Your task to perform on an android device: Open CNN.com Image 0: 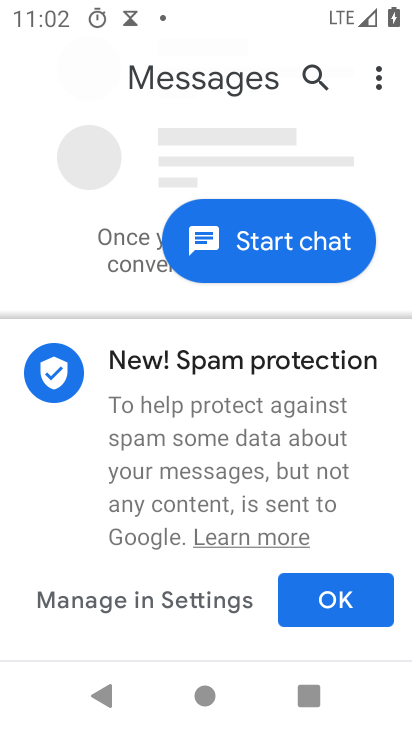
Step 0: press home button
Your task to perform on an android device: Open CNN.com Image 1: 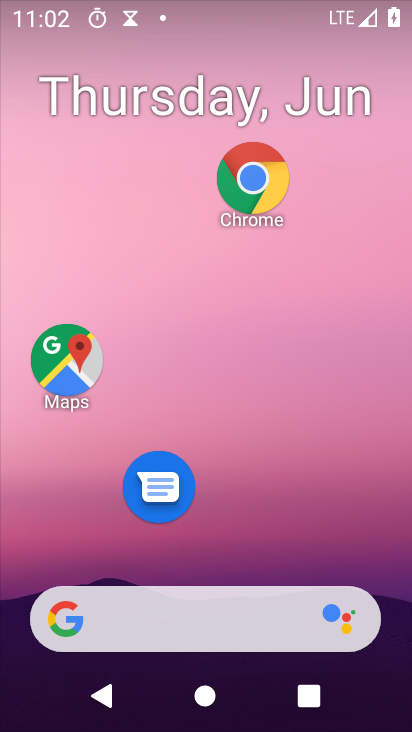
Step 1: click (257, 179)
Your task to perform on an android device: Open CNN.com Image 2: 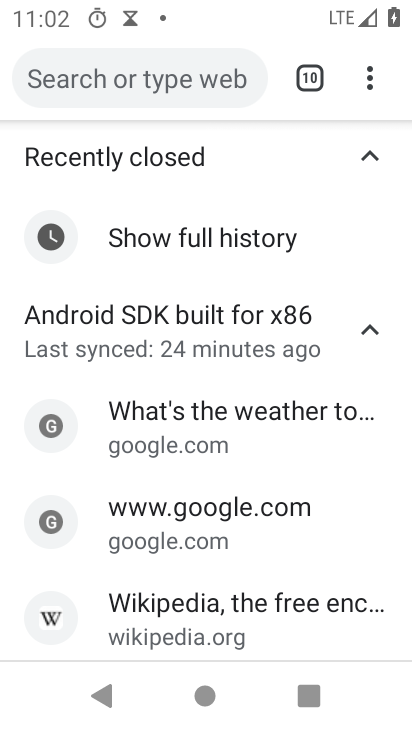
Step 2: click (372, 87)
Your task to perform on an android device: Open CNN.com Image 3: 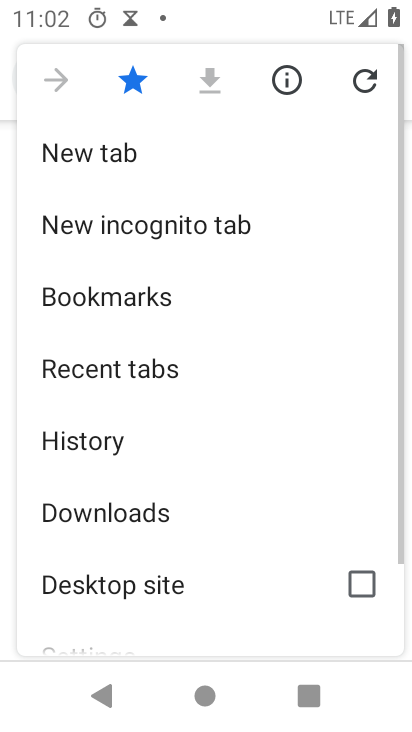
Step 3: click (104, 146)
Your task to perform on an android device: Open CNN.com Image 4: 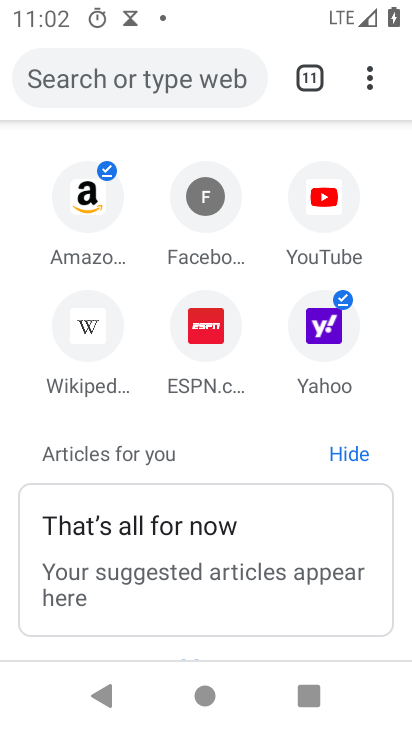
Step 4: click (175, 81)
Your task to perform on an android device: Open CNN.com Image 5: 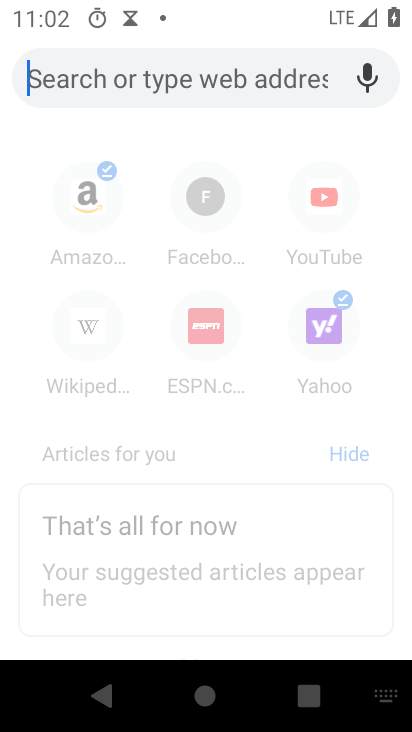
Step 5: type "CNN.com"
Your task to perform on an android device: Open CNN.com Image 6: 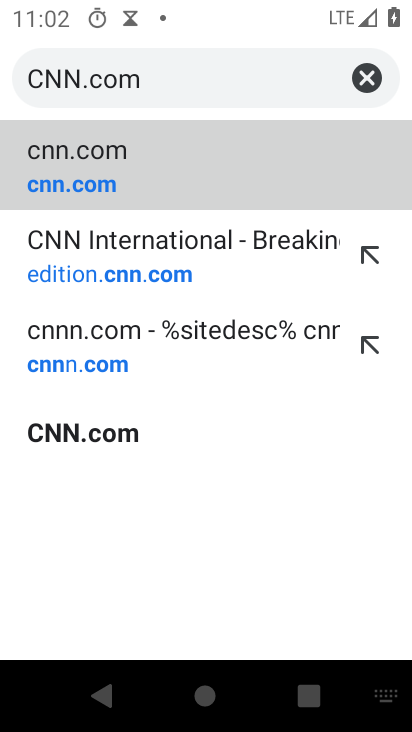
Step 6: click (106, 175)
Your task to perform on an android device: Open CNN.com Image 7: 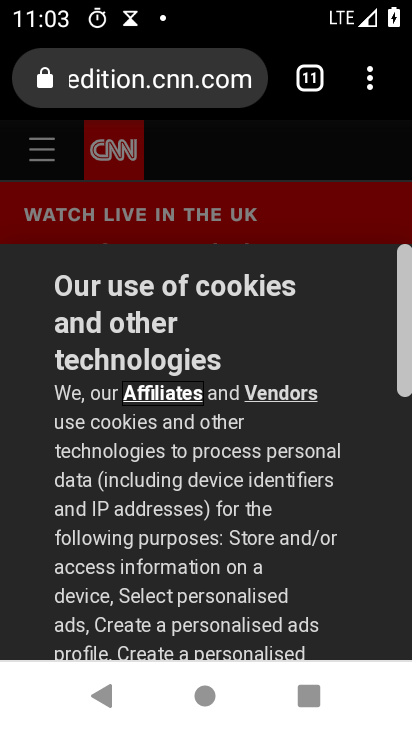
Step 7: task complete